Your task to perform on an android device: uninstall "Google Find My Device" Image 0: 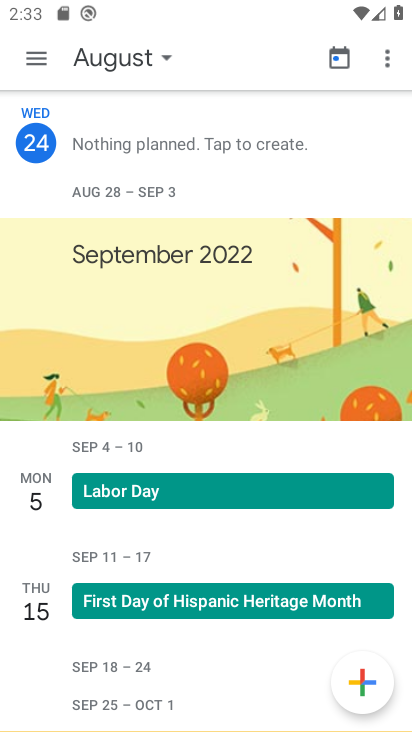
Step 0: press back button
Your task to perform on an android device: uninstall "Google Find My Device" Image 1: 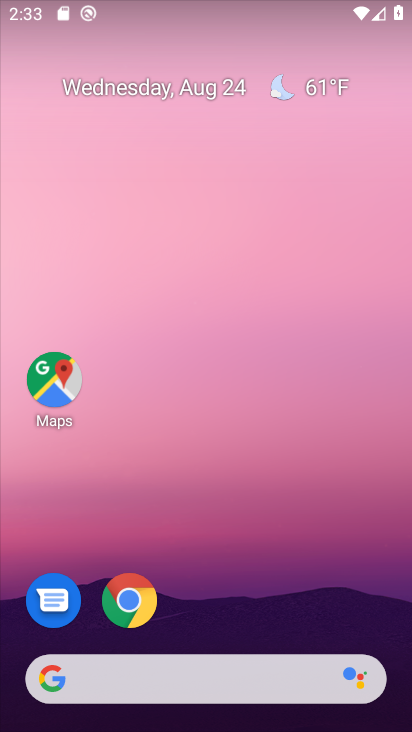
Step 1: drag from (266, 605) to (302, 100)
Your task to perform on an android device: uninstall "Google Find My Device" Image 2: 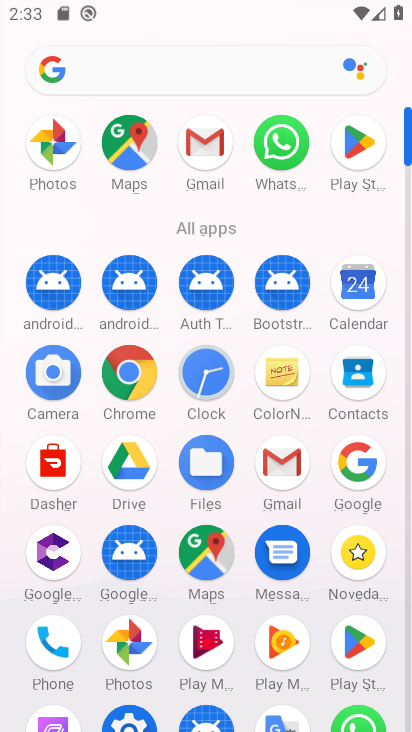
Step 2: click (356, 146)
Your task to perform on an android device: uninstall "Google Find My Device" Image 3: 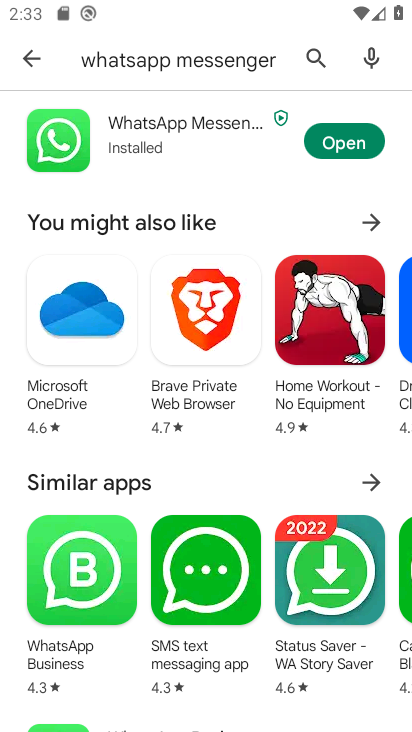
Step 3: click (313, 60)
Your task to perform on an android device: uninstall "Google Find My Device" Image 4: 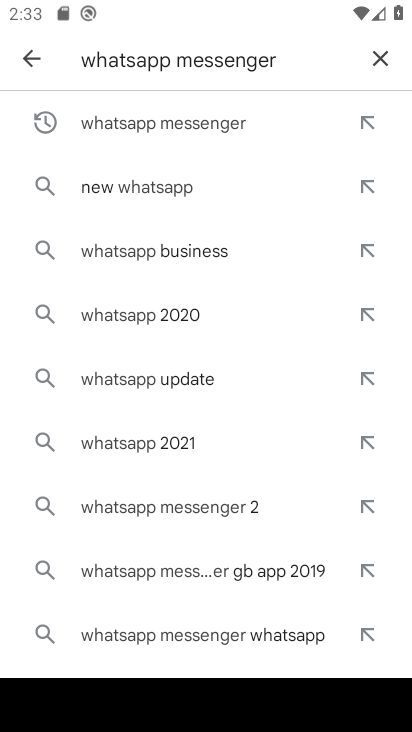
Step 4: click (362, 57)
Your task to perform on an android device: uninstall "Google Find My Device" Image 5: 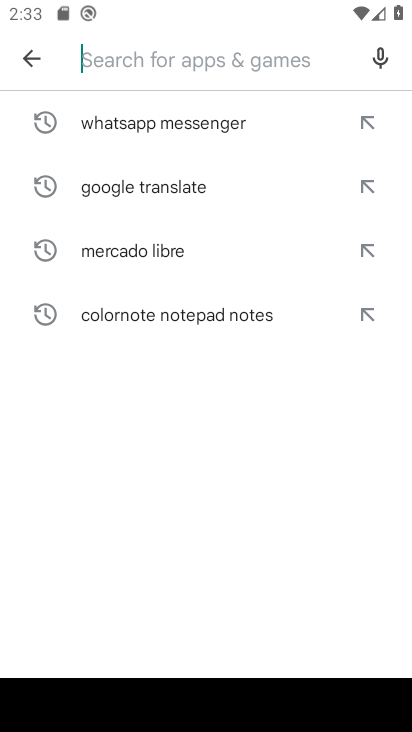
Step 5: click (133, 60)
Your task to perform on an android device: uninstall "Google Find My Device" Image 6: 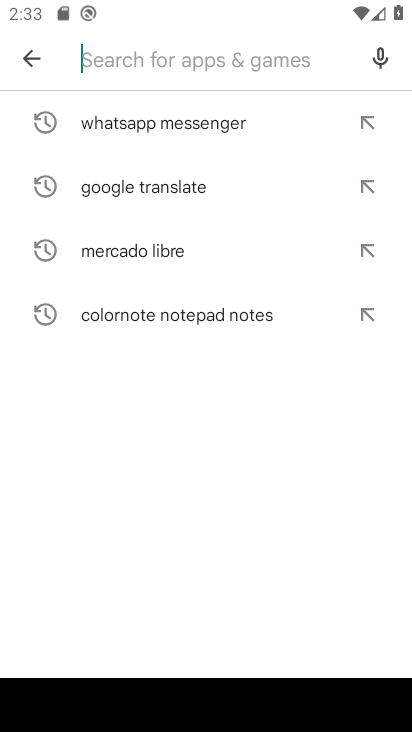
Step 6: type "Google Find My Device"
Your task to perform on an android device: uninstall "Google Find My Device" Image 7: 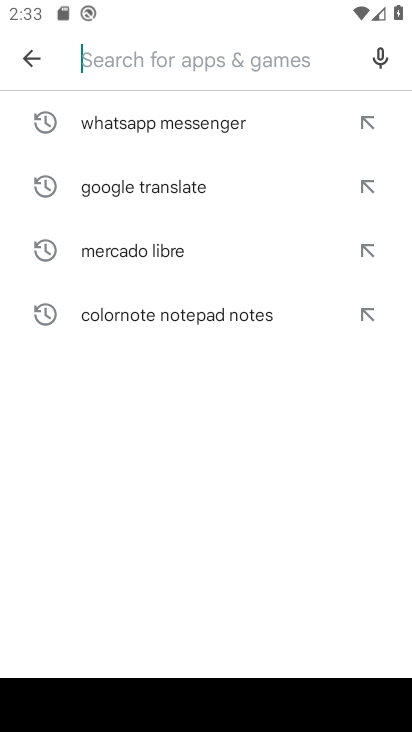
Step 7: click (285, 540)
Your task to perform on an android device: uninstall "Google Find My Device" Image 8: 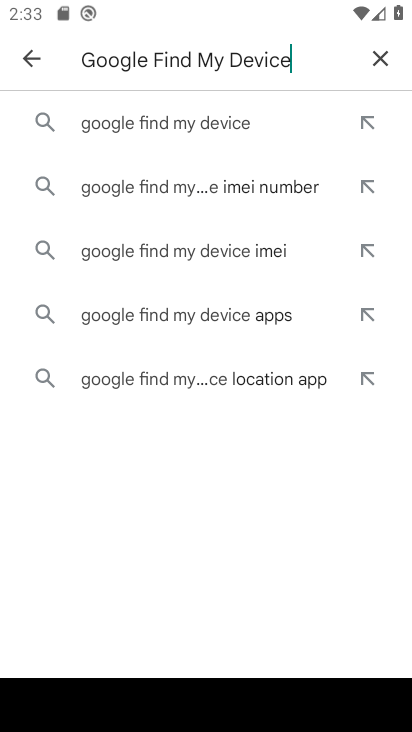
Step 8: click (154, 107)
Your task to perform on an android device: uninstall "Google Find My Device" Image 9: 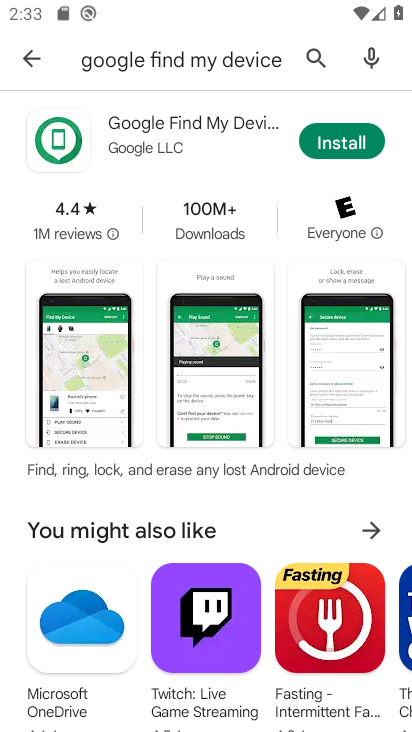
Step 9: click (190, 137)
Your task to perform on an android device: uninstall "Google Find My Device" Image 10: 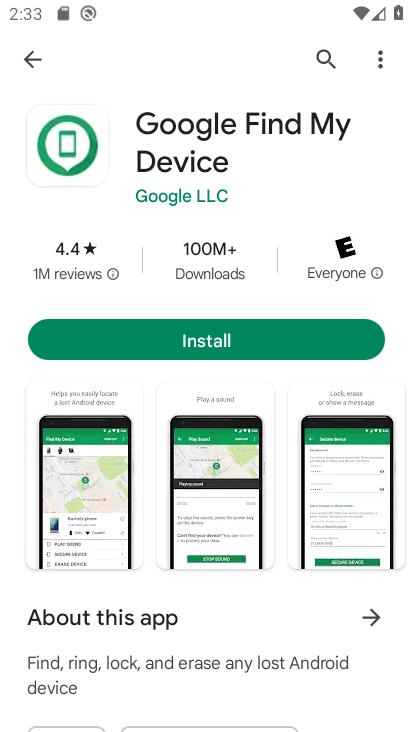
Step 10: task complete